Your task to perform on an android device: Search for vegetarian restaurants on Maps Image 0: 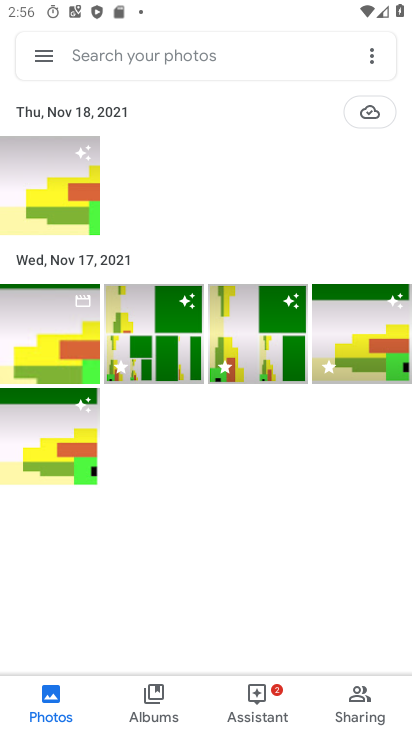
Step 0: press home button
Your task to perform on an android device: Search for vegetarian restaurants on Maps Image 1: 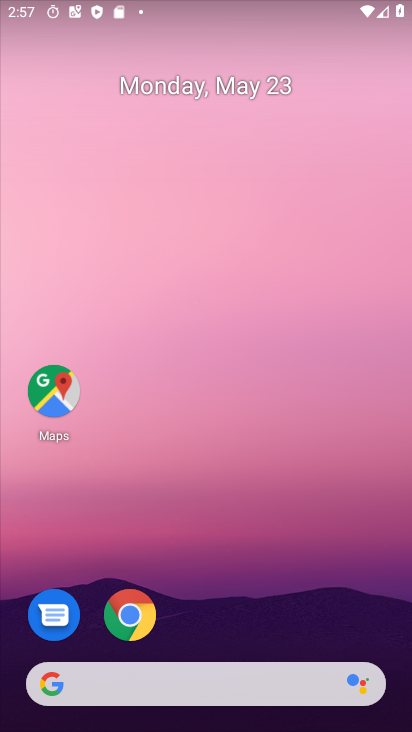
Step 1: click (54, 380)
Your task to perform on an android device: Search for vegetarian restaurants on Maps Image 2: 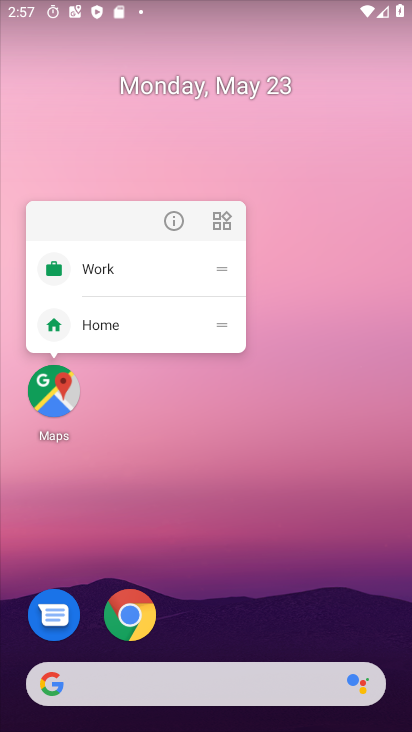
Step 2: click (54, 393)
Your task to perform on an android device: Search for vegetarian restaurants on Maps Image 3: 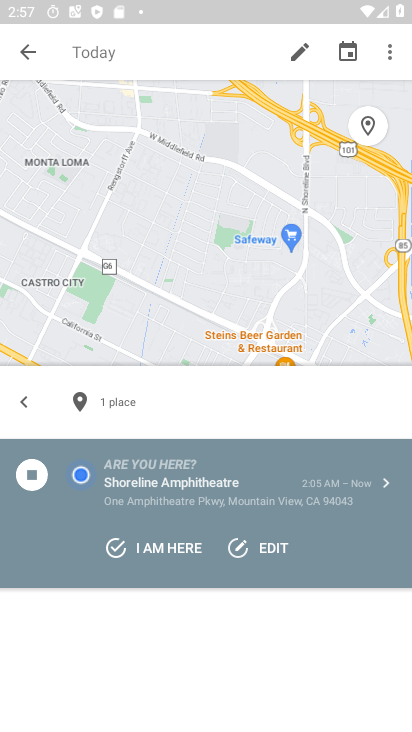
Step 3: click (25, 49)
Your task to perform on an android device: Search for vegetarian restaurants on Maps Image 4: 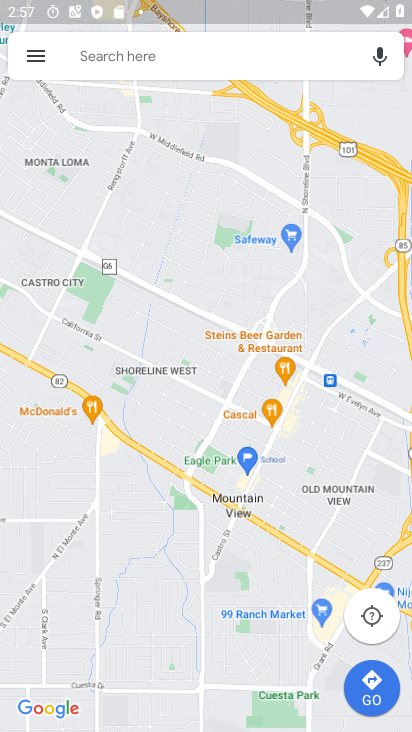
Step 4: click (93, 58)
Your task to perform on an android device: Search for vegetarian restaurants on Maps Image 5: 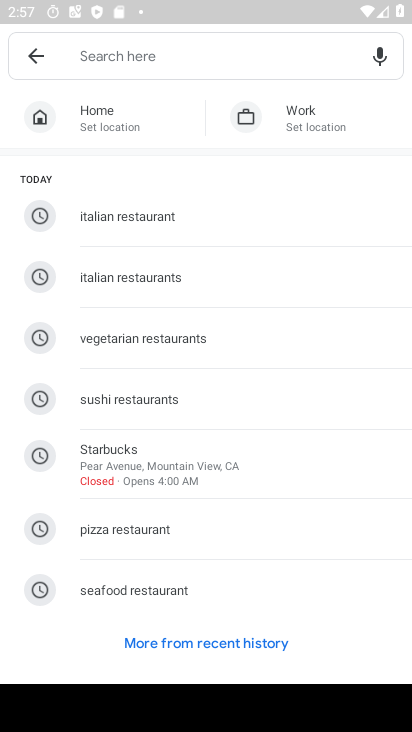
Step 5: type "vegetarian restaurants"
Your task to perform on an android device: Search for vegetarian restaurants on Maps Image 6: 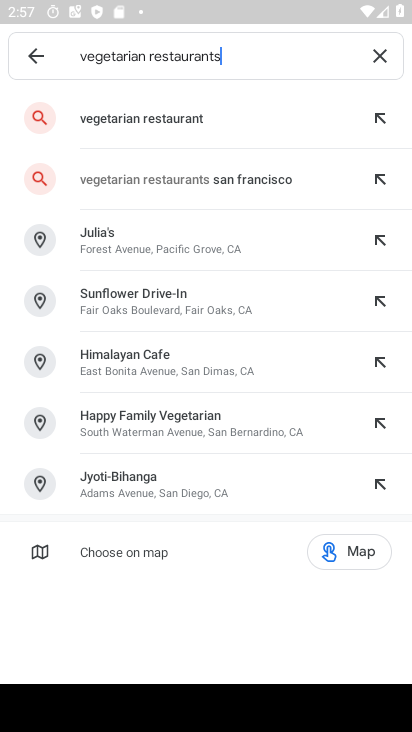
Step 6: click (146, 123)
Your task to perform on an android device: Search for vegetarian restaurants on Maps Image 7: 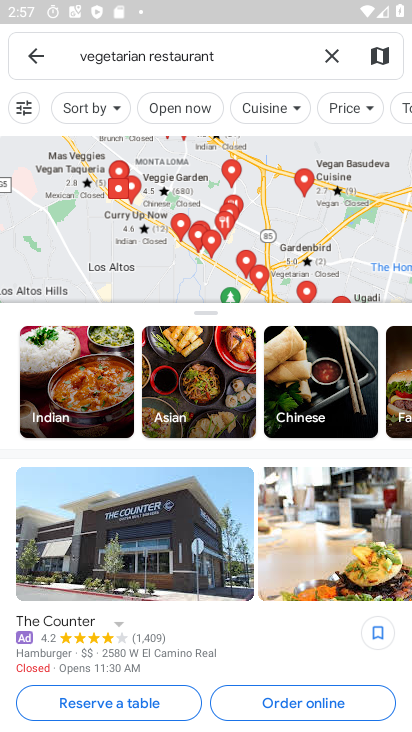
Step 7: task complete